Your task to perform on an android device: Go to internet settings Image 0: 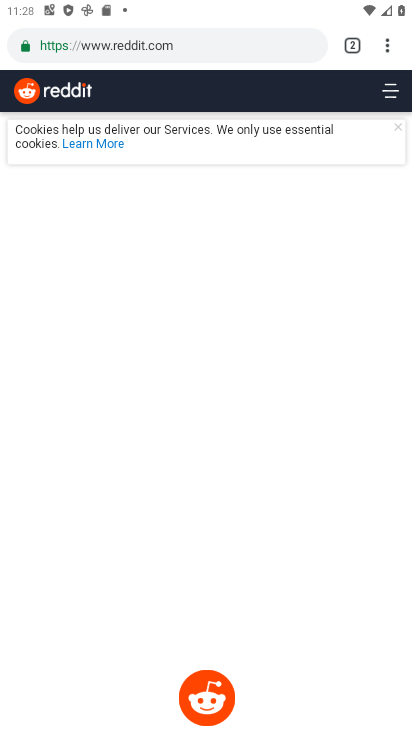
Step 0: press home button
Your task to perform on an android device: Go to internet settings Image 1: 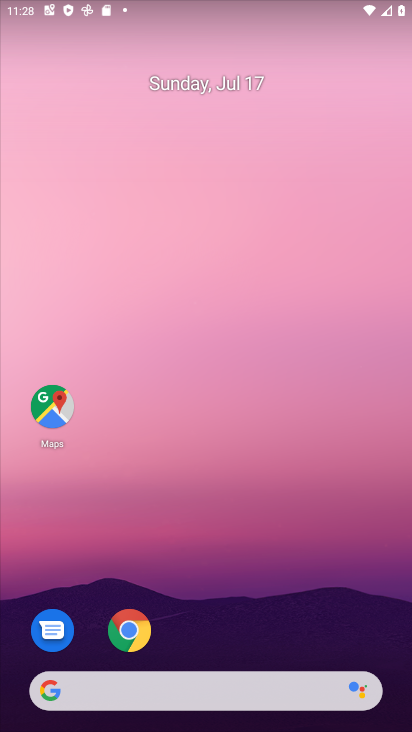
Step 1: drag from (213, 628) to (250, 3)
Your task to perform on an android device: Go to internet settings Image 2: 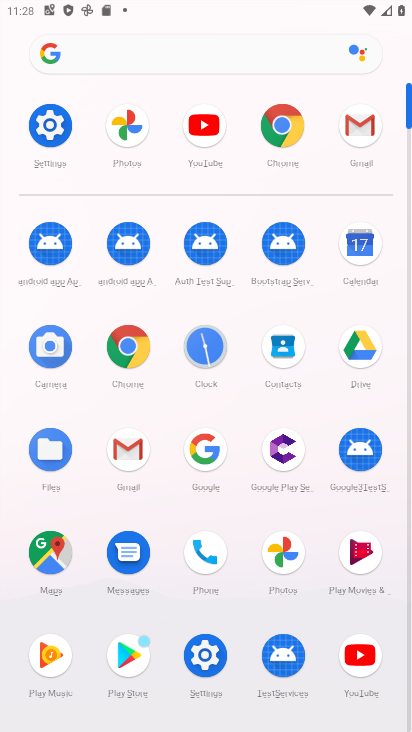
Step 2: click (68, 125)
Your task to perform on an android device: Go to internet settings Image 3: 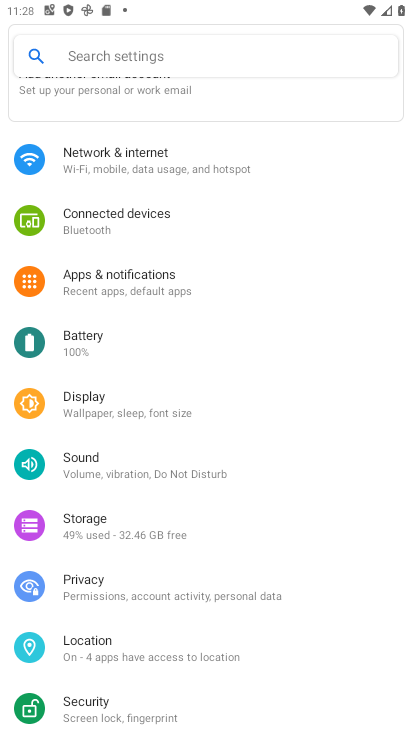
Step 3: click (187, 146)
Your task to perform on an android device: Go to internet settings Image 4: 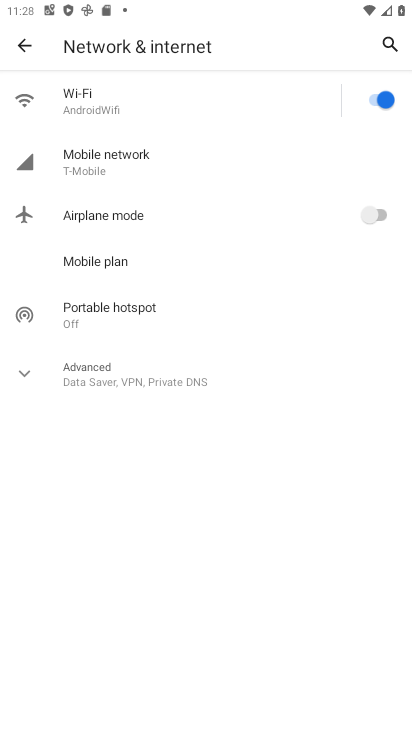
Step 4: task complete